Your task to perform on an android device: Toggle the flashlight Image 0: 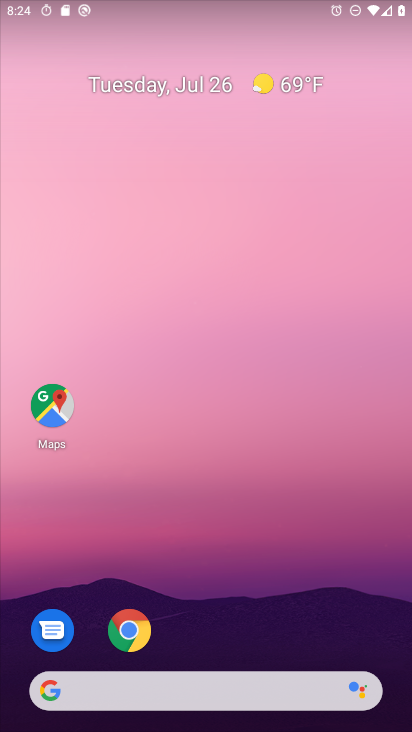
Step 0: drag from (297, 631) to (226, 148)
Your task to perform on an android device: Toggle the flashlight Image 1: 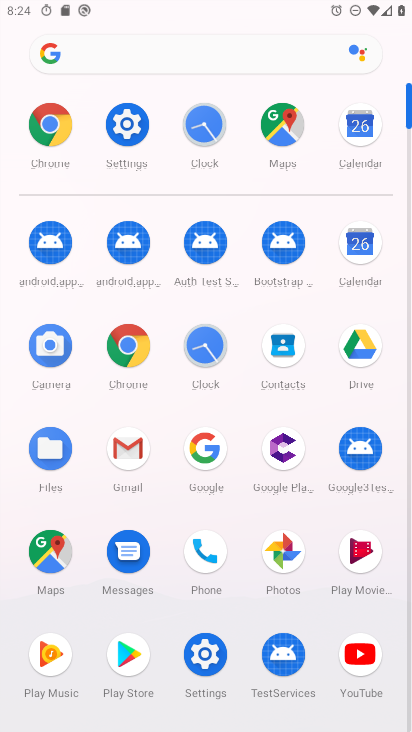
Step 1: click (210, 659)
Your task to perform on an android device: Toggle the flashlight Image 2: 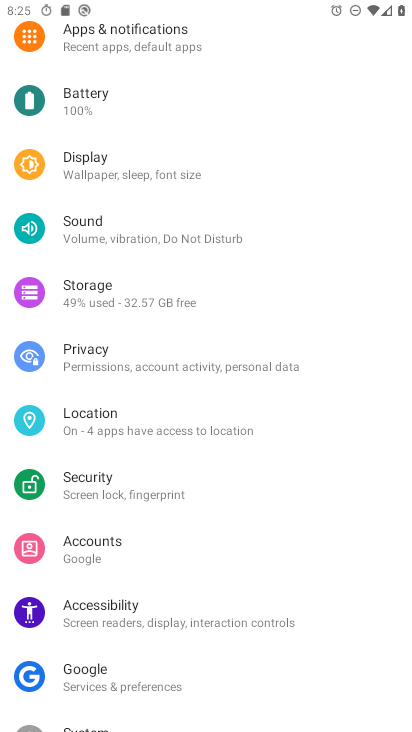
Step 2: task complete